Your task to perform on an android device: toggle airplane mode Image 0: 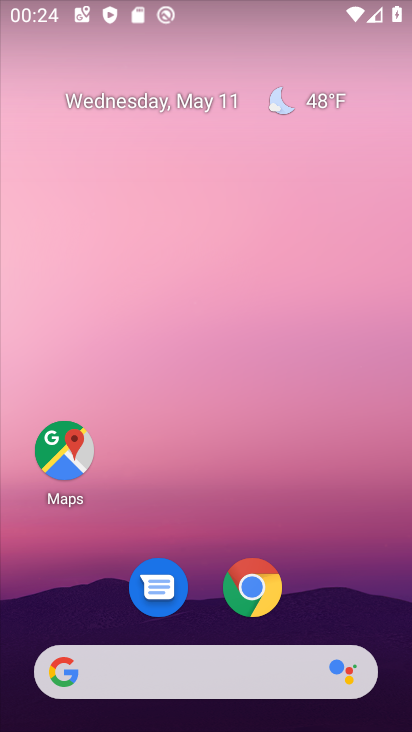
Step 0: drag from (358, 8) to (335, 392)
Your task to perform on an android device: toggle airplane mode Image 1: 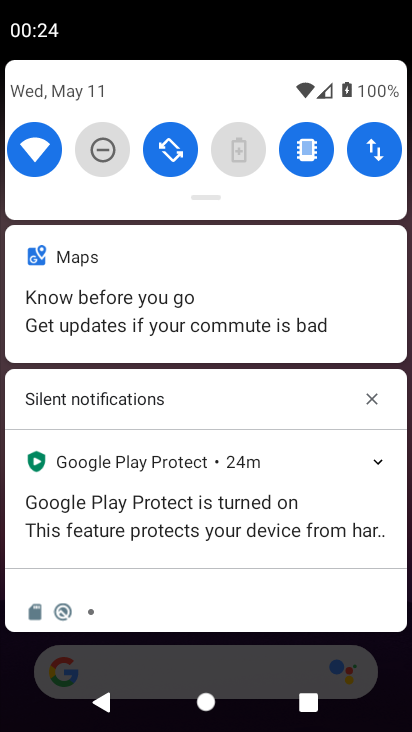
Step 1: drag from (242, 199) to (249, 632)
Your task to perform on an android device: toggle airplane mode Image 2: 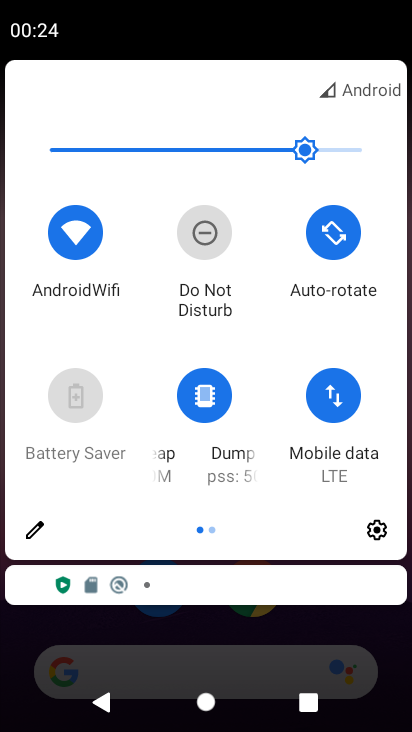
Step 2: drag from (301, 373) to (0, 313)
Your task to perform on an android device: toggle airplane mode Image 3: 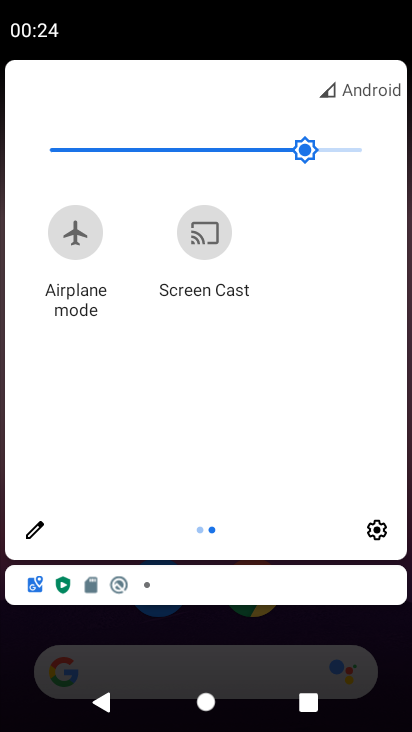
Step 3: click (82, 233)
Your task to perform on an android device: toggle airplane mode Image 4: 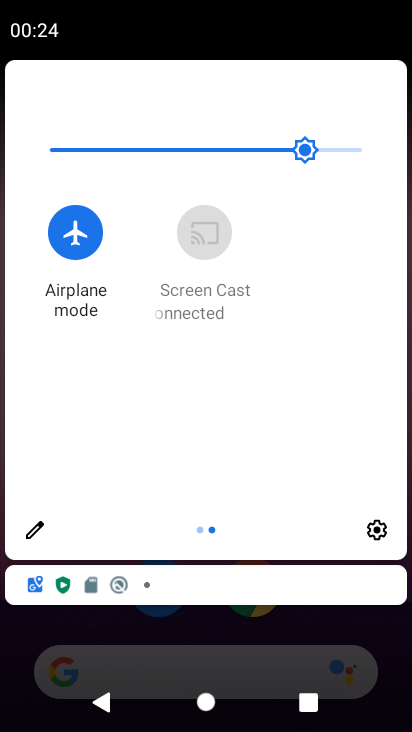
Step 4: task complete